Your task to perform on an android device: Set the phone to "Do not disturb". Image 0: 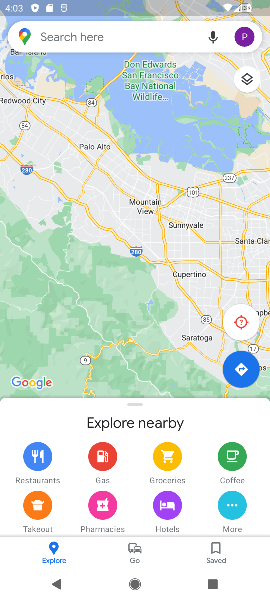
Step 0: press home button
Your task to perform on an android device: Set the phone to "Do not disturb". Image 1: 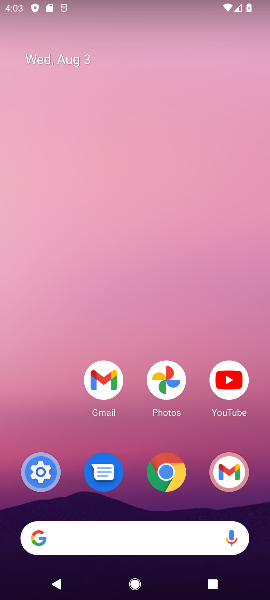
Step 1: drag from (197, 510) to (122, 82)
Your task to perform on an android device: Set the phone to "Do not disturb". Image 2: 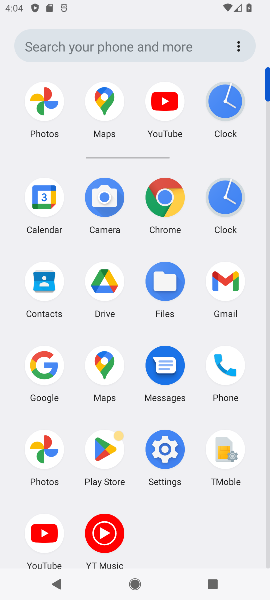
Step 2: drag from (150, 0) to (158, 489)
Your task to perform on an android device: Set the phone to "Do not disturb". Image 3: 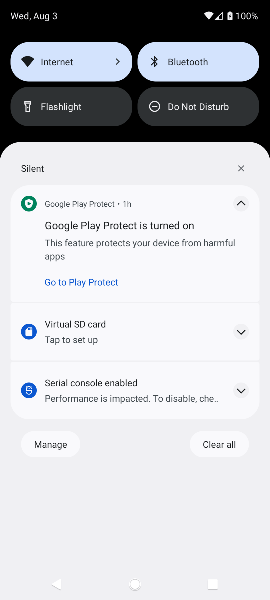
Step 3: drag from (137, 111) to (144, 526)
Your task to perform on an android device: Set the phone to "Do not disturb". Image 4: 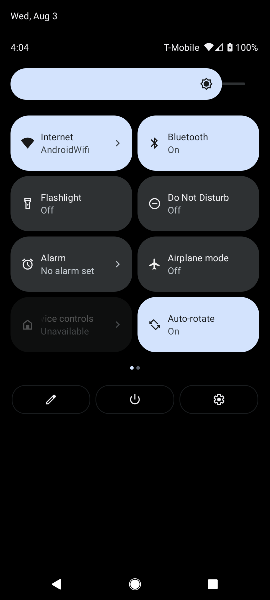
Step 4: click (198, 204)
Your task to perform on an android device: Set the phone to "Do not disturb". Image 5: 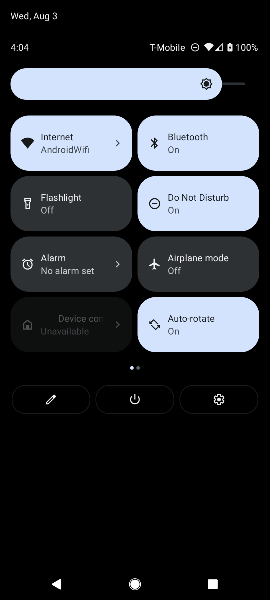
Step 5: task complete